Your task to perform on an android device: What's the weather today? Image 0: 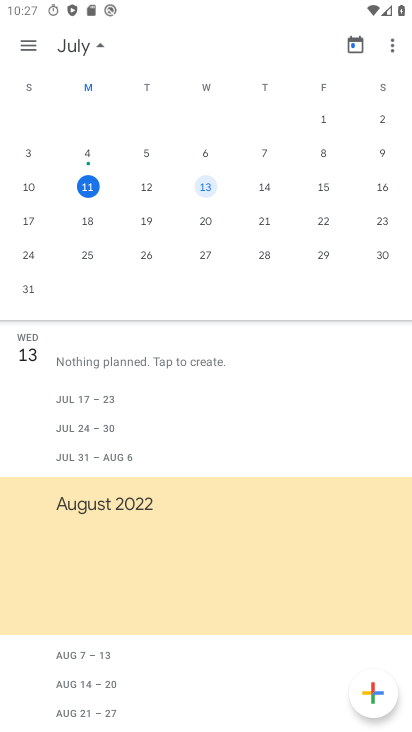
Step 0: press home button
Your task to perform on an android device: What's the weather today? Image 1: 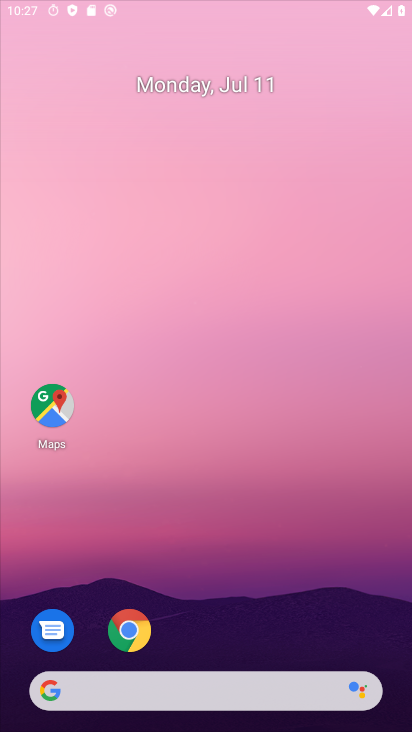
Step 1: drag from (258, 681) to (334, 39)
Your task to perform on an android device: What's the weather today? Image 2: 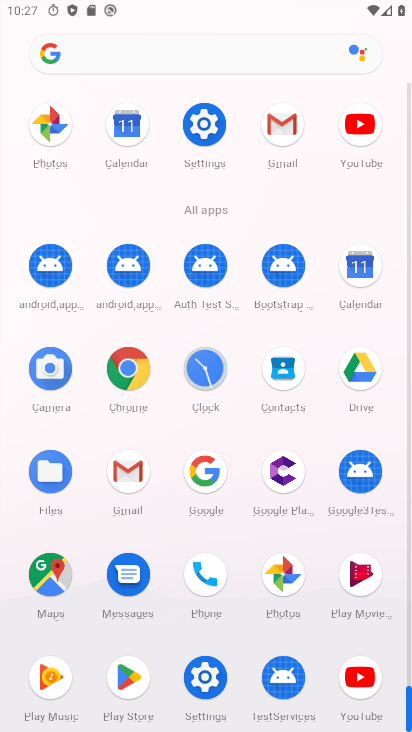
Step 2: click (137, 372)
Your task to perform on an android device: What's the weather today? Image 3: 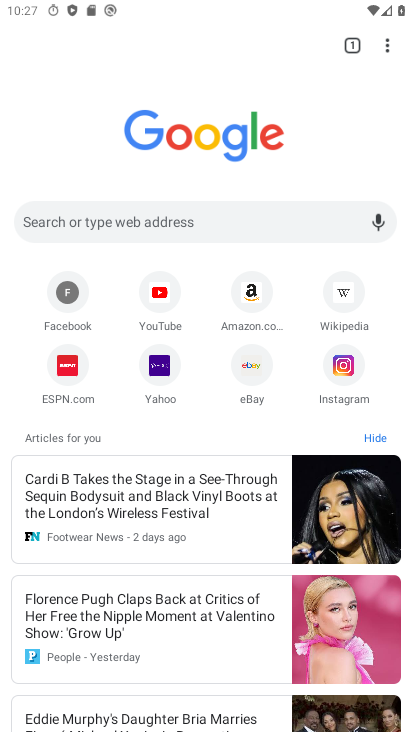
Step 3: press home button
Your task to perform on an android device: What's the weather today? Image 4: 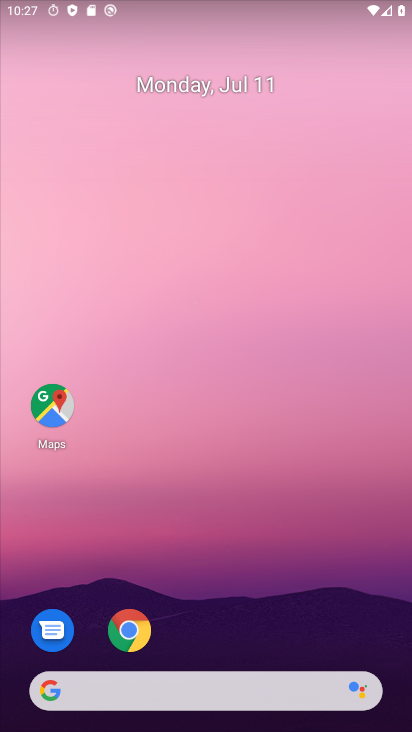
Step 4: drag from (142, 703) to (215, 31)
Your task to perform on an android device: What's the weather today? Image 5: 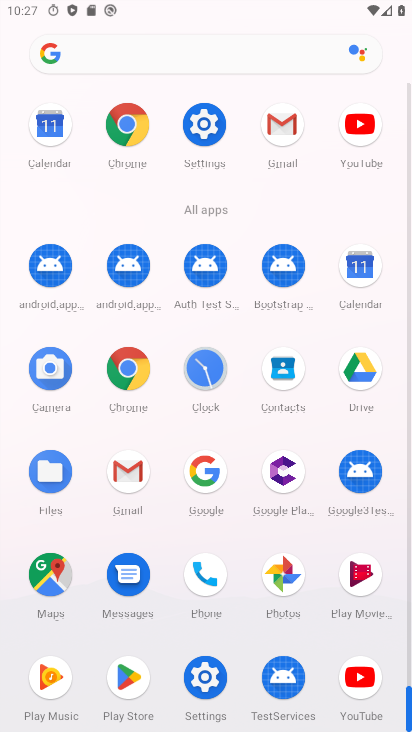
Step 5: click (353, 269)
Your task to perform on an android device: What's the weather today? Image 6: 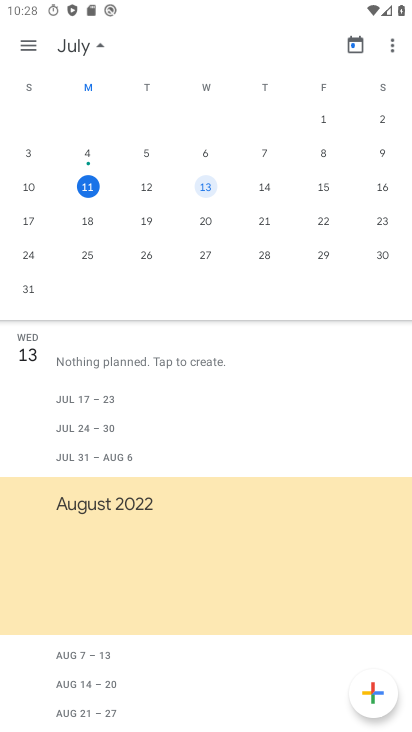
Step 6: click (198, 183)
Your task to perform on an android device: What's the weather today? Image 7: 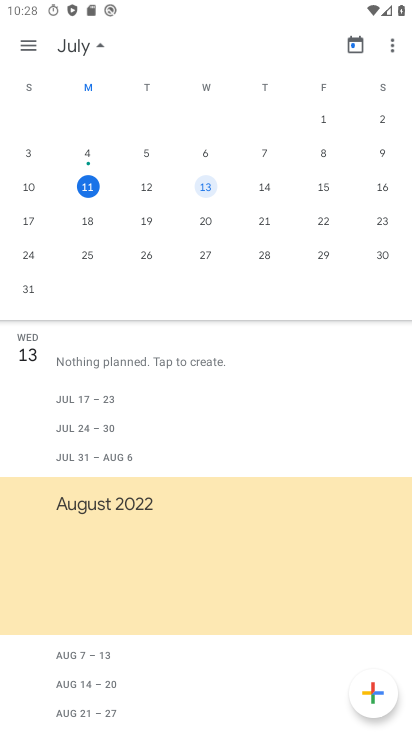
Step 7: click (198, 183)
Your task to perform on an android device: What's the weather today? Image 8: 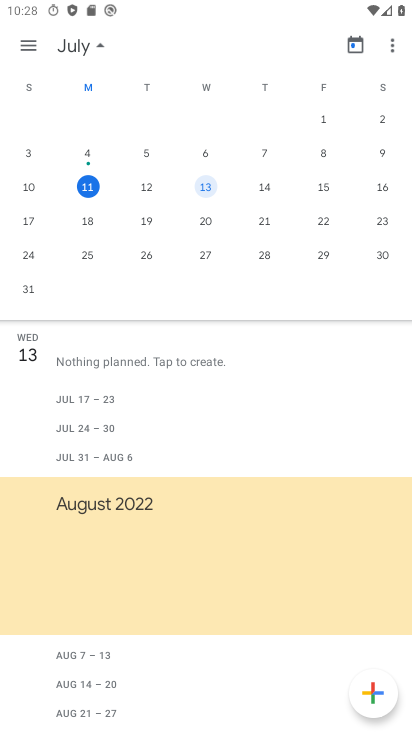
Step 8: click (151, 189)
Your task to perform on an android device: What's the weather today? Image 9: 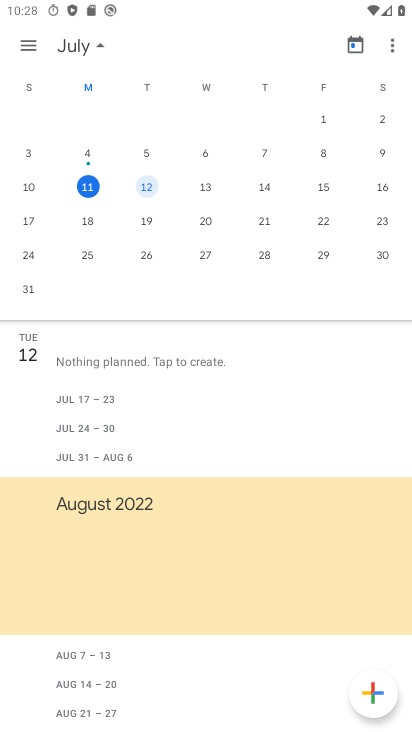
Step 9: press home button
Your task to perform on an android device: What's the weather today? Image 10: 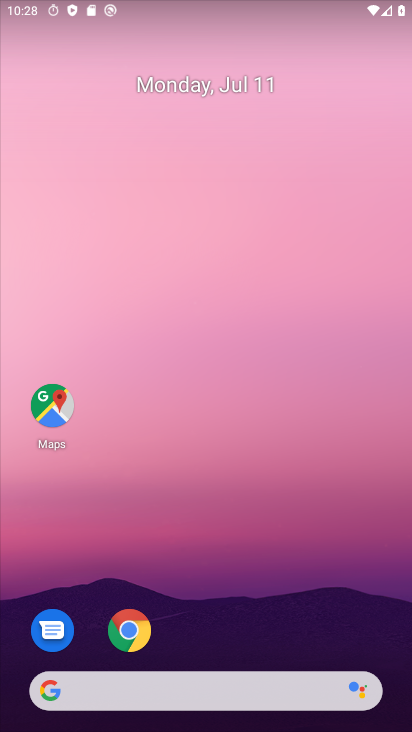
Step 10: drag from (273, 704) to (310, 70)
Your task to perform on an android device: What's the weather today? Image 11: 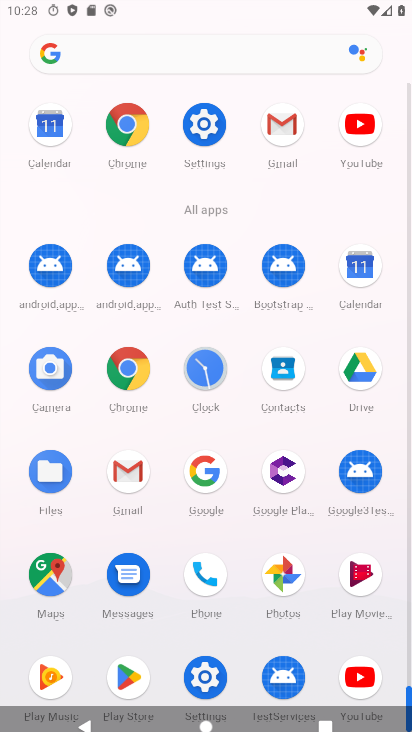
Step 11: click (361, 286)
Your task to perform on an android device: What's the weather today? Image 12: 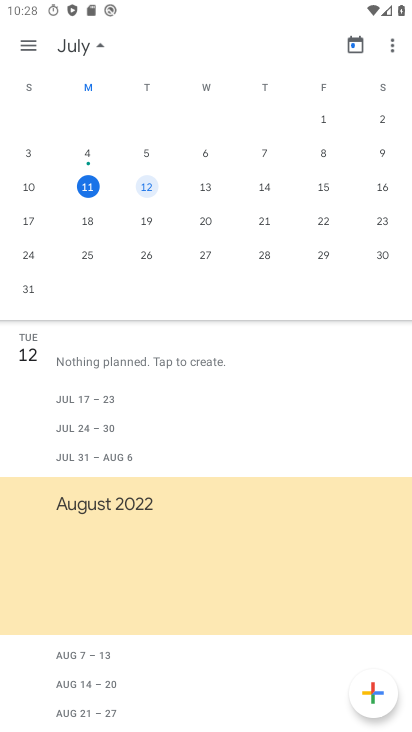
Step 12: click (147, 186)
Your task to perform on an android device: What's the weather today? Image 13: 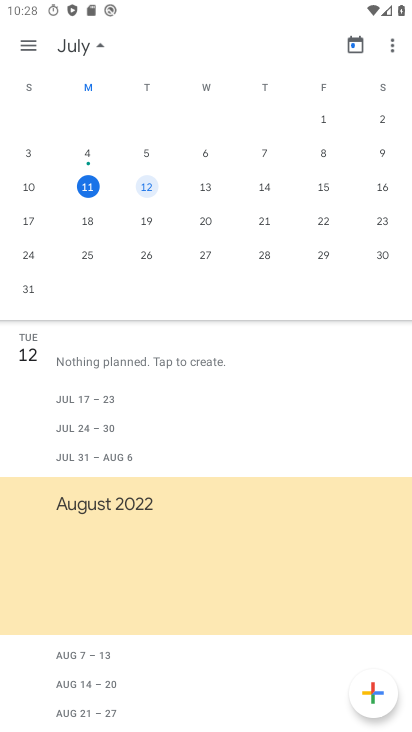
Step 13: task complete